Your task to perform on an android device: add a contact Image 0: 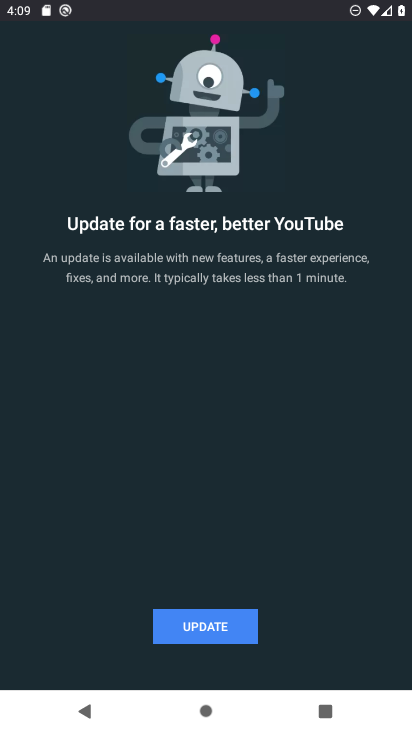
Step 0: press home button
Your task to perform on an android device: add a contact Image 1: 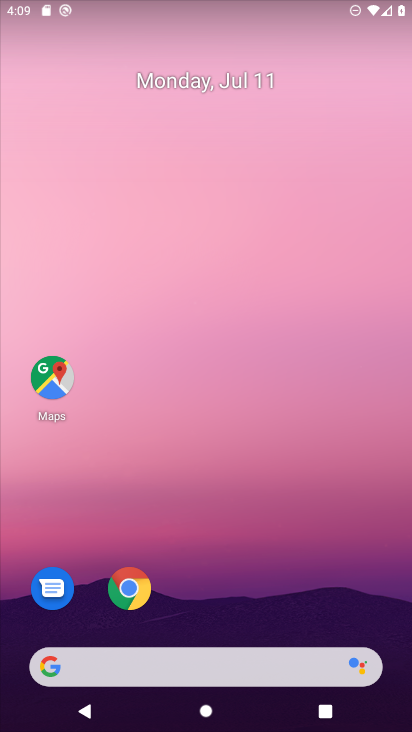
Step 1: click (296, 97)
Your task to perform on an android device: add a contact Image 2: 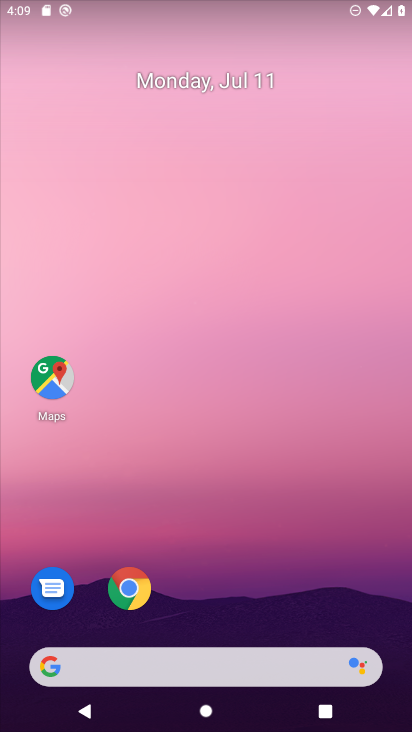
Step 2: drag from (256, 581) to (190, 22)
Your task to perform on an android device: add a contact Image 3: 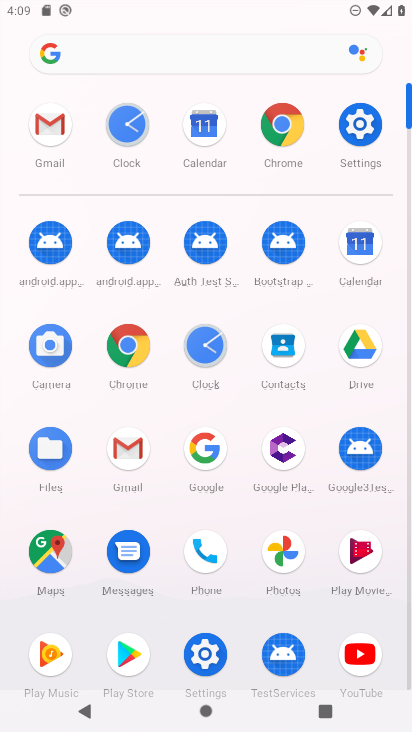
Step 3: click (277, 353)
Your task to perform on an android device: add a contact Image 4: 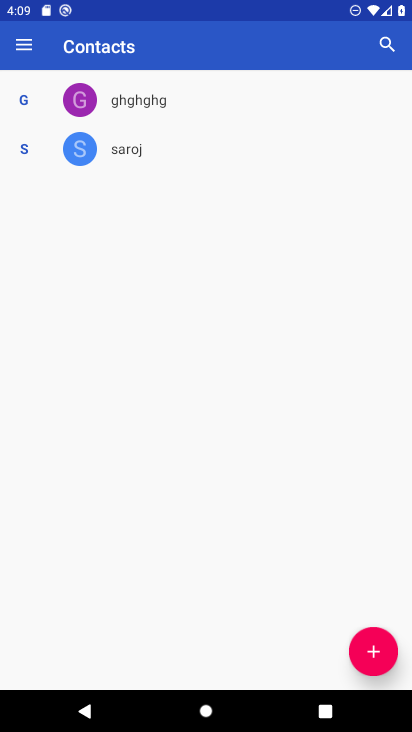
Step 4: click (379, 655)
Your task to perform on an android device: add a contact Image 5: 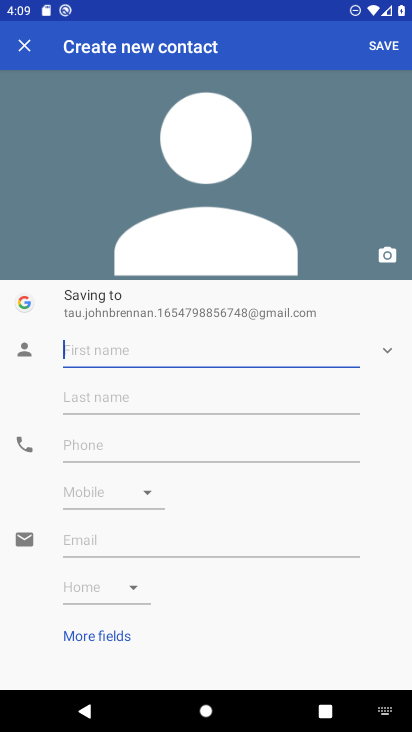
Step 5: type "hjjhjhjhhj"
Your task to perform on an android device: add a contact Image 6: 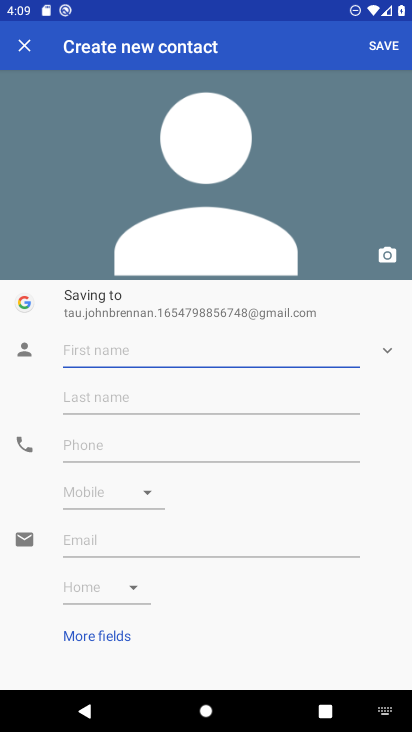
Step 6: click (90, 355)
Your task to perform on an android device: add a contact Image 7: 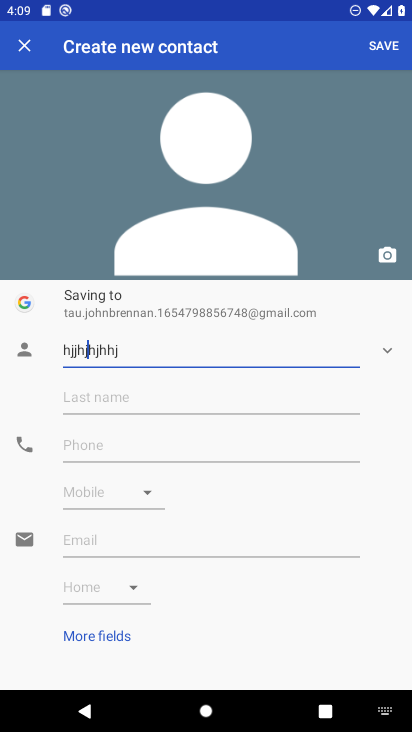
Step 7: click (124, 446)
Your task to perform on an android device: add a contact Image 8: 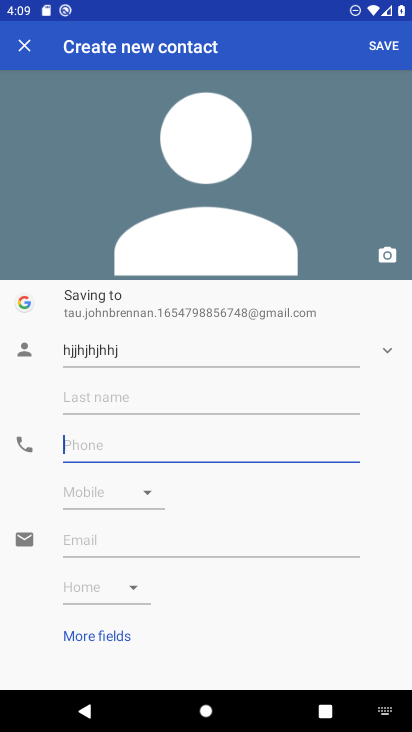
Step 8: type "7887878787"
Your task to perform on an android device: add a contact Image 9: 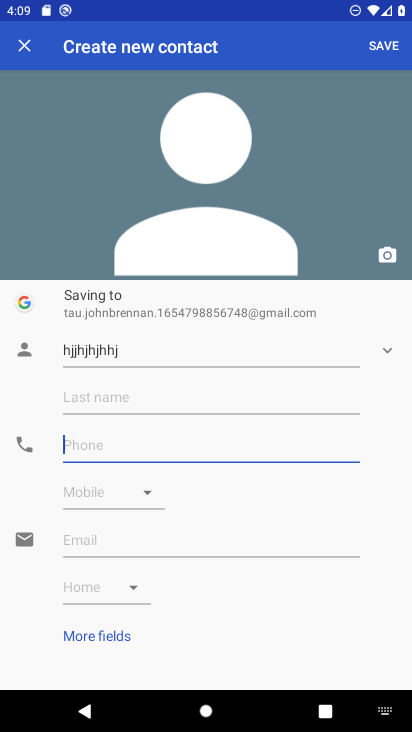
Step 9: click (97, 441)
Your task to perform on an android device: add a contact Image 10: 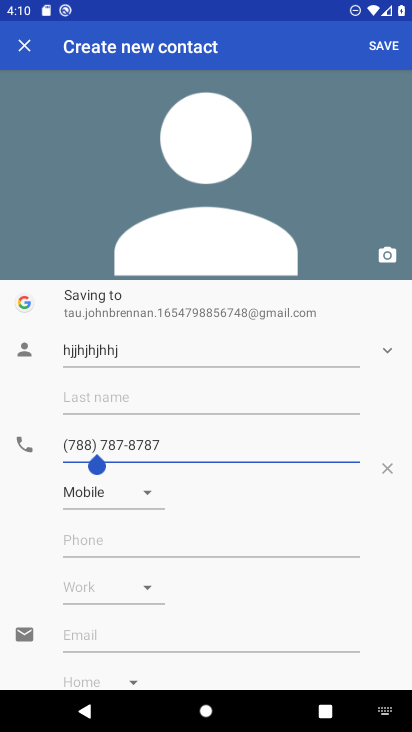
Step 10: click (381, 48)
Your task to perform on an android device: add a contact Image 11: 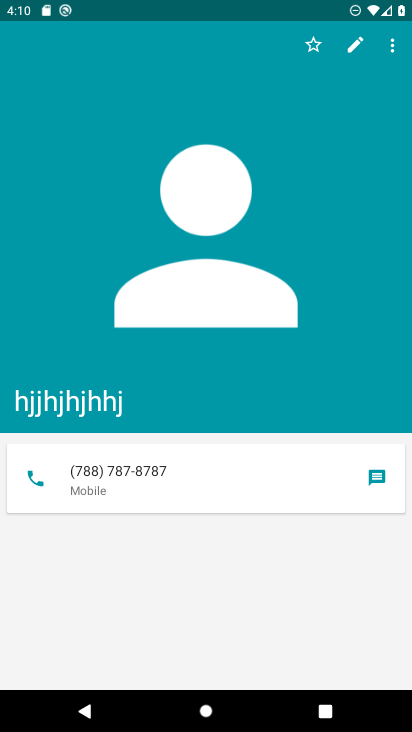
Step 11: task complete